Your task to perform on an android device: Go to calendar. Show me events next week Image 0: 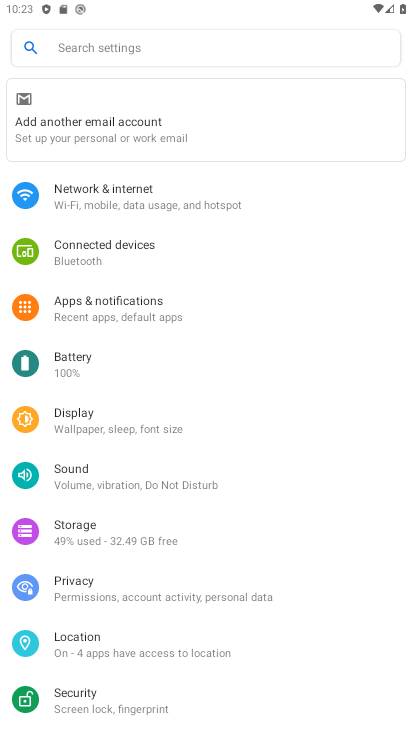
Step 0: press home button
Your task to perform on an android device: Go to calendar. Show me events next week Image 1: 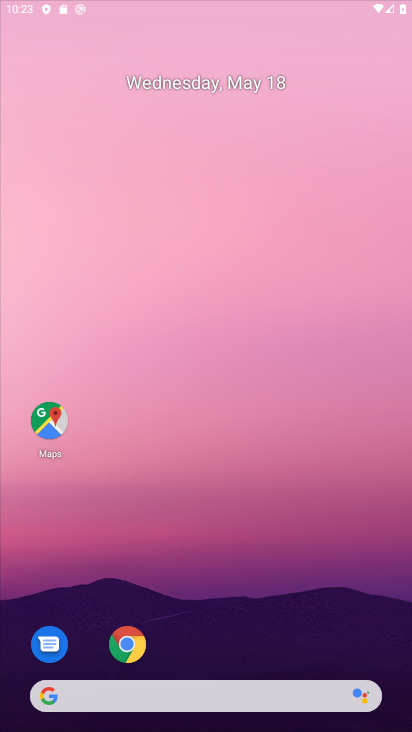
Step 1: drag from (391, 638) to (210, 77)
Your task to perform on an android device: Go to calendar. Show me events next week Image 2: 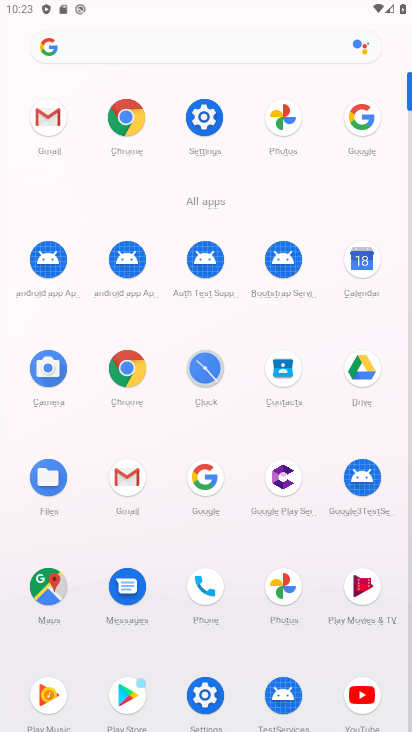
Step 2: click (358, 257)
Your task to perform on an android device: Go to calendar. Show me events next week Image 3: 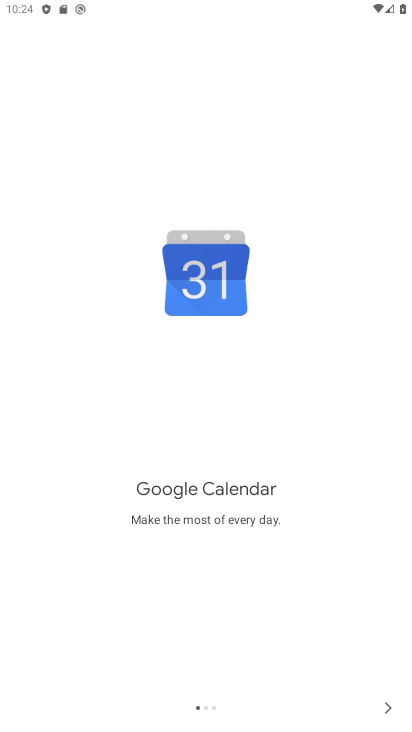
Step 3: click (392, 695)
Your task to perform on an android device: Go to calendar. Show me events next week Image 4: 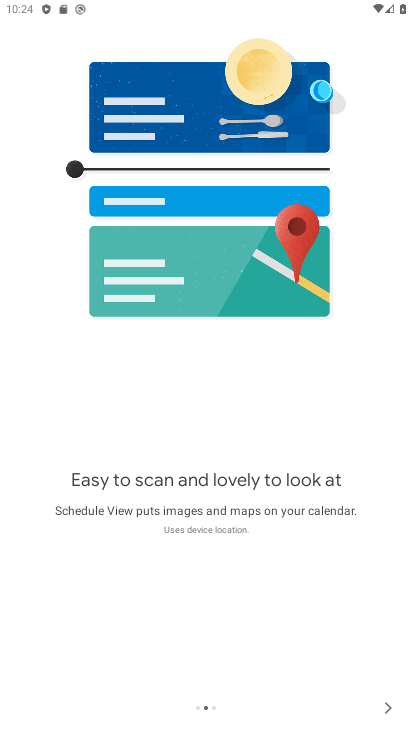
Step 4: click (392, 695)
Your task to perform on an android device: Go to calendar. Show me events next week Image 5: 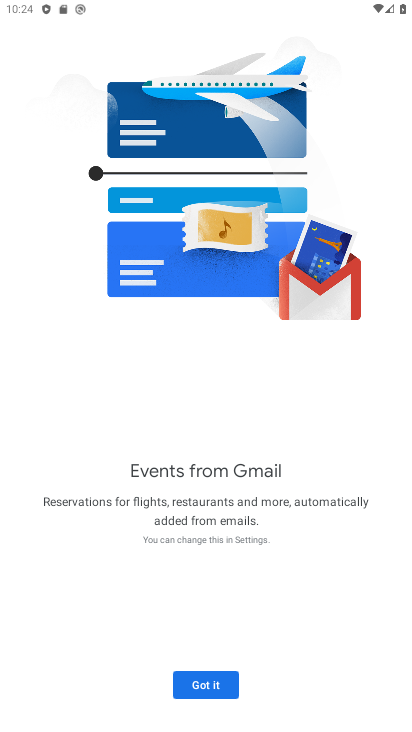
Step 5: click (202, 684)
Your task to perform on an android device: Go to calendar. Show me events next week Image 6: 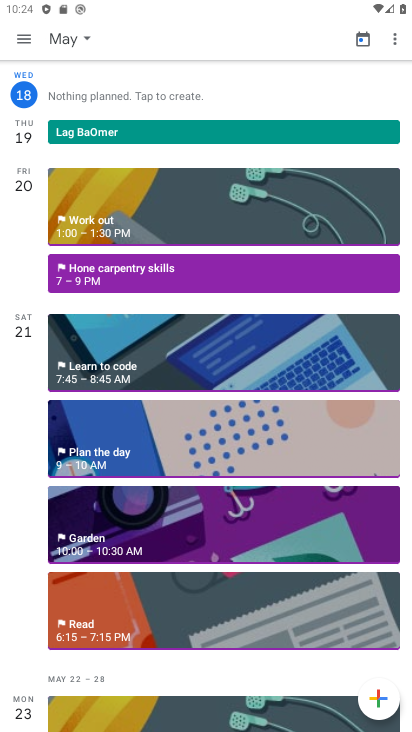
Step 6: task complete